Your task to perform on an android device: install app "Move to iOS" Image 0: 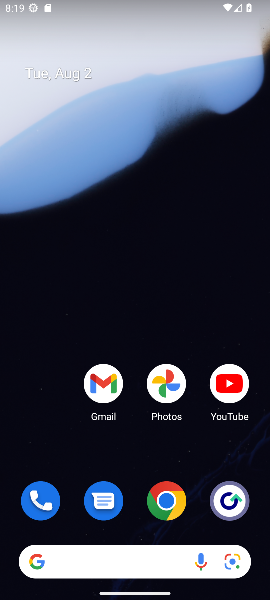
Step 0: drag from (144, 473) to (156, 340)
Your task to perform on an android device: install app "Move to iOS" Image 1: 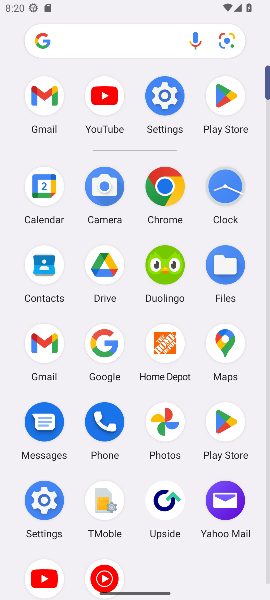
Step 1: click (228, 100)
Your task to perform on an android device: install app "Move to iOS" Image 2: 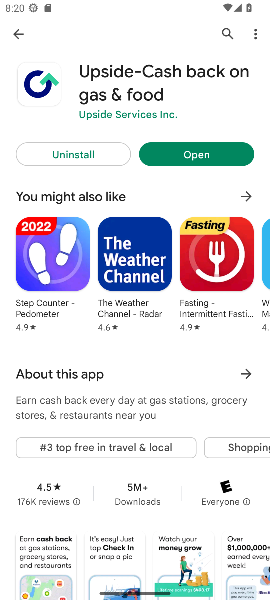
Step 2: task complete